Your task to perform on an android device: install app "Messenger Lite" Image 0: 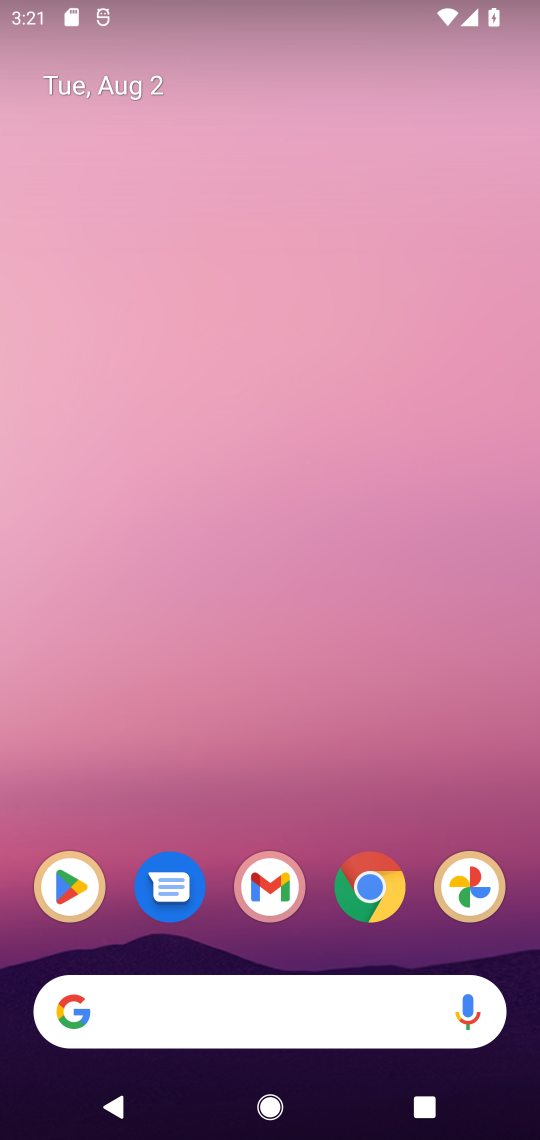
Step 0: drag from (183, 547) to (259, 280)
Your task to perform on an android device: install app "Messenger Lite" Image 1: 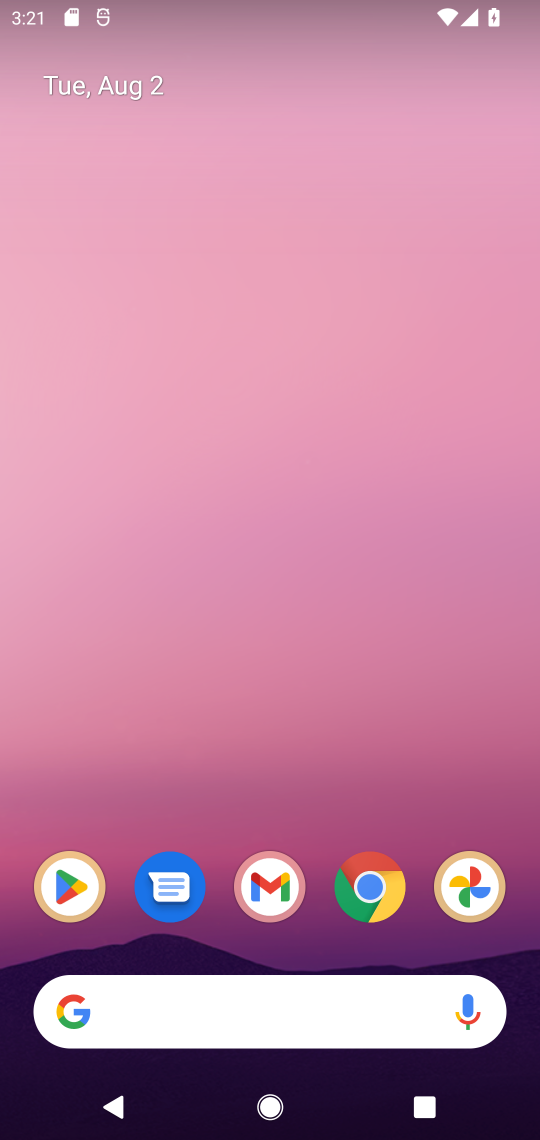
Step 1: click (55, 900)
Your task to perform on an android device: install app "Messenger Lite" Image 2: 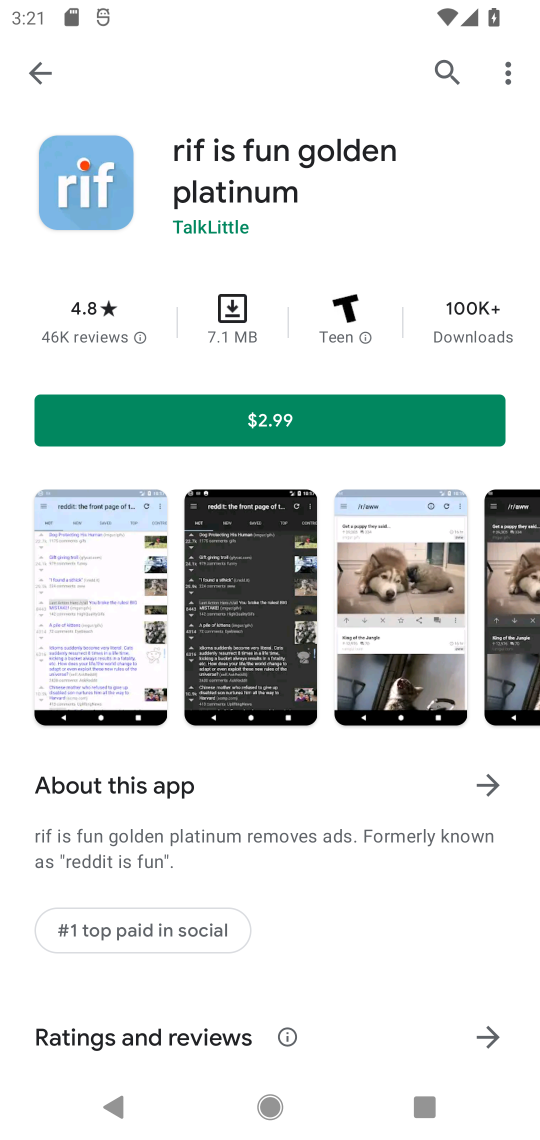
Step 2: click (24, 74)
Your task to perform on an android device: install app "Messenger Lite" Image 3: 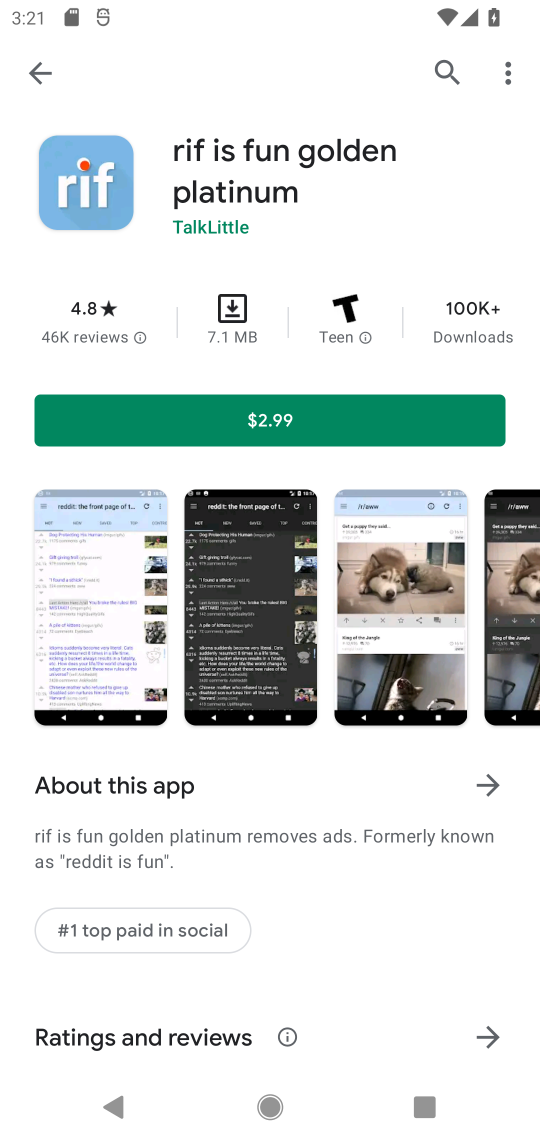
Step 3: click (30, 71)
Your task to perform on an android device: install app "Messenger Lite" Image 4: 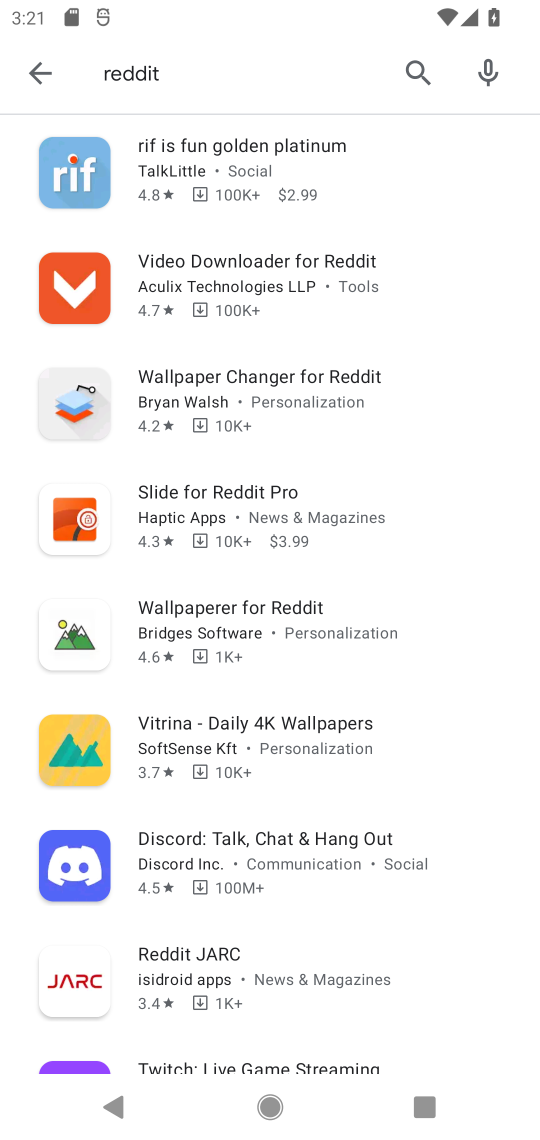
Step 4: click (41, 76)
Your task to perform on an android device: install app "Messenger Lite" Image 5: 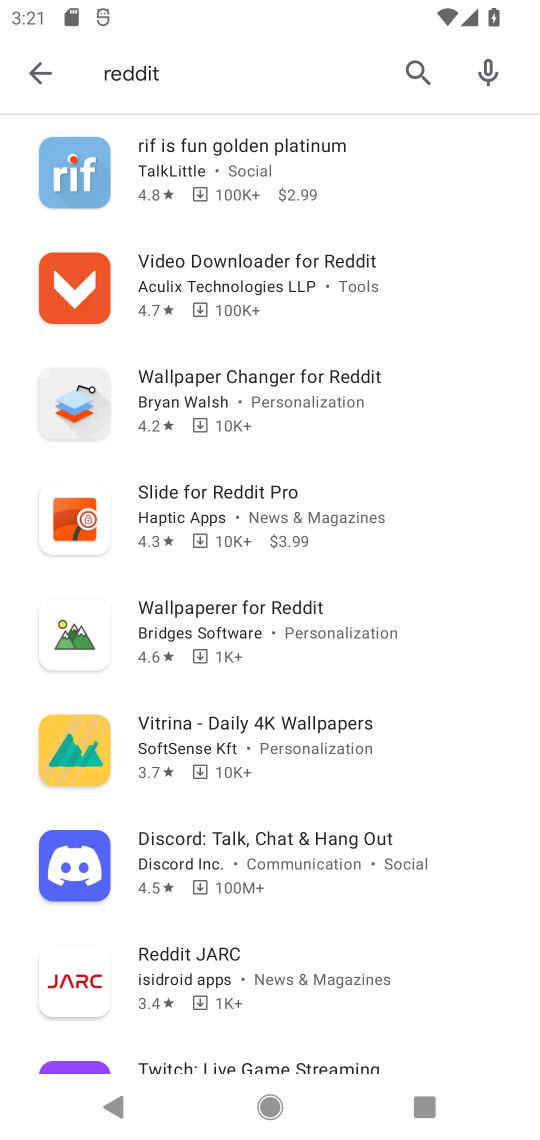
Step 5: click (26, 75)
Your task to perform on an android device: install app "Messenger Lite" Image 6: 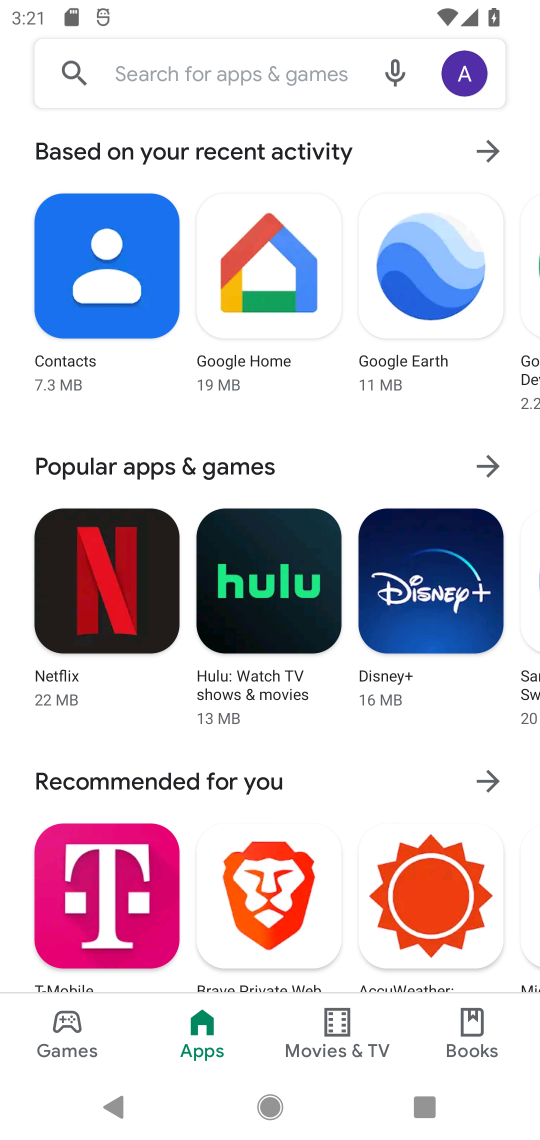
Step 6: click (140, 60)
Your task to perform on an android device: install app "Messenger Lite" Image 7: 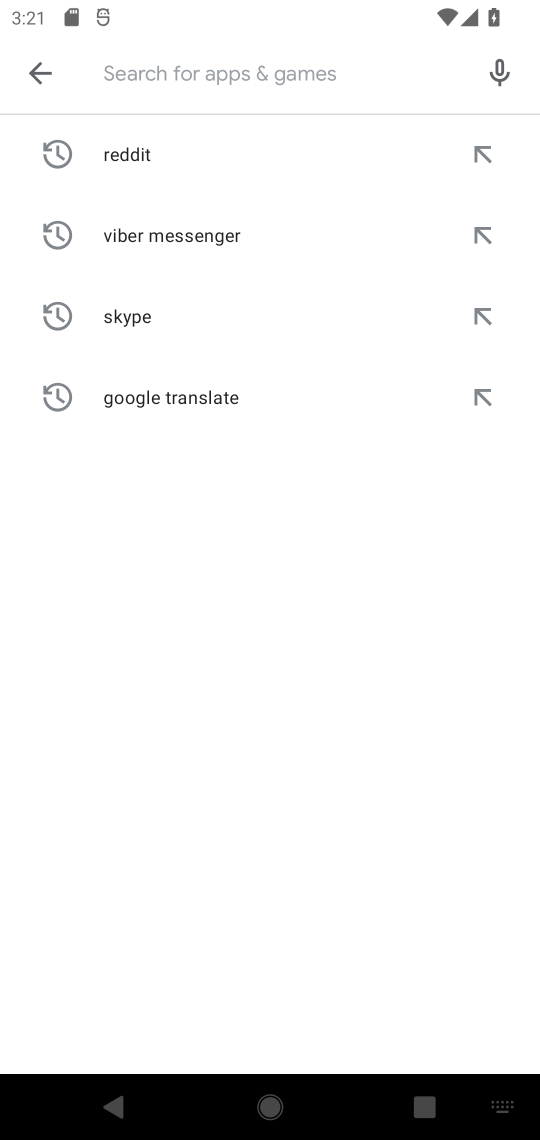
Step 7: type "Messenger Lite"
Your task to perform on an android device: install app "Messenger Lite" Image 8: 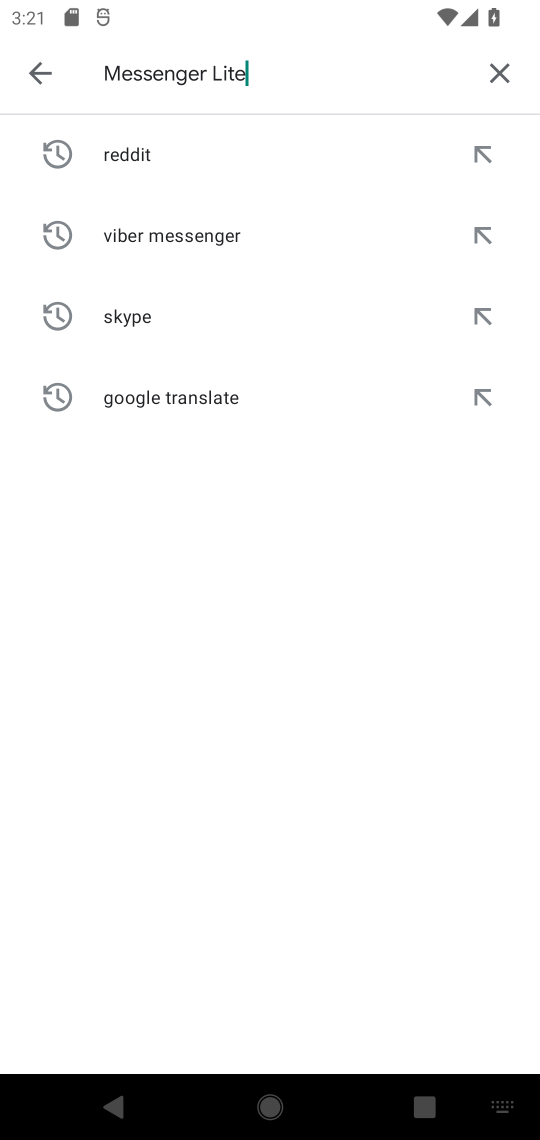
Step 8: type ""
Your task to perform on an android device: install app "Messenger Lite" Image 9: 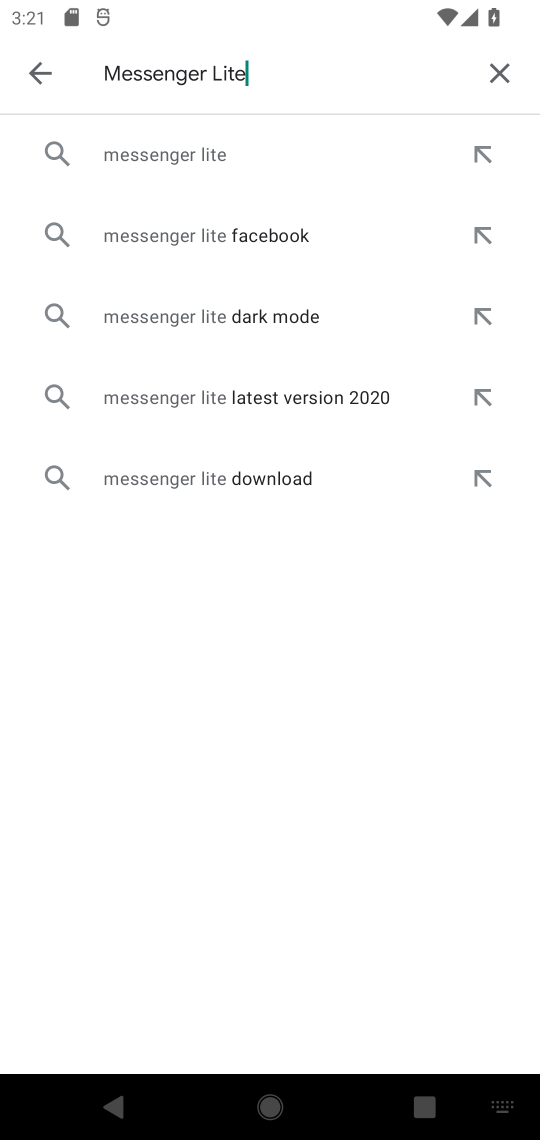
Step 9: click (229, 164)
Your task to perform on an android device: install app "Messenger Lite" Image 10: 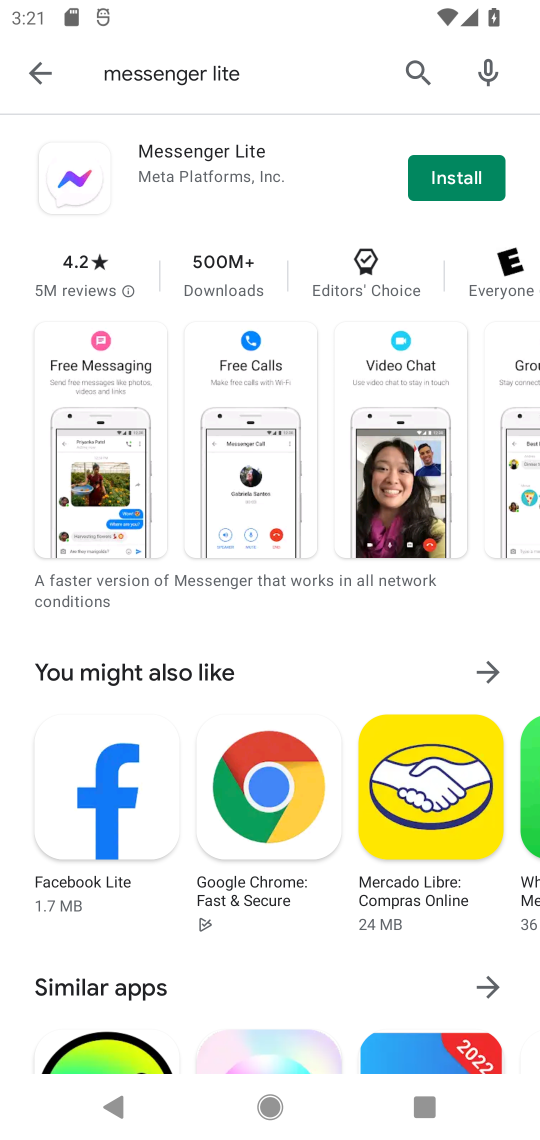
Step 10: click (434, 184)
Your task to perform on an android device: install app "Messenger Lite" Image 11: 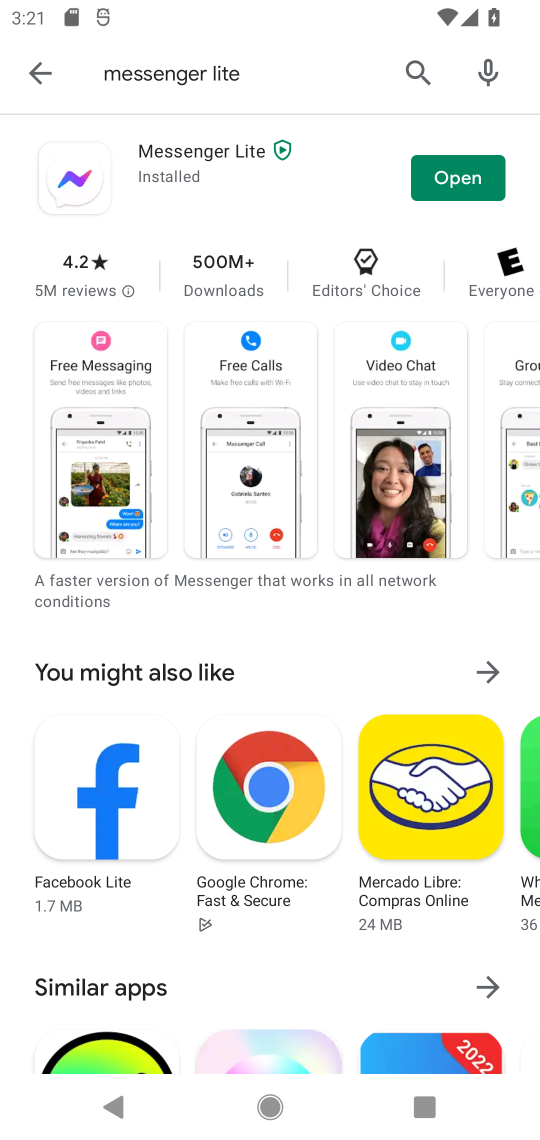
Step 11: task complete